Your task to perform on an android device: delete a single message in the gmail app Image 0: 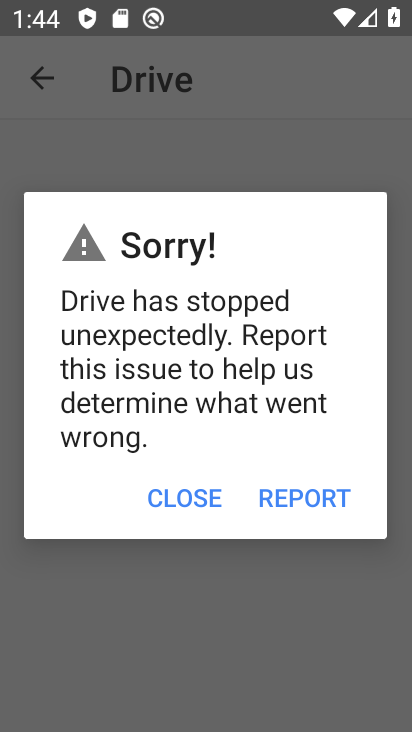
Step 0: click (175, 501)
Your task to perform on an android device: delete a single message in the gmail app Image 1: 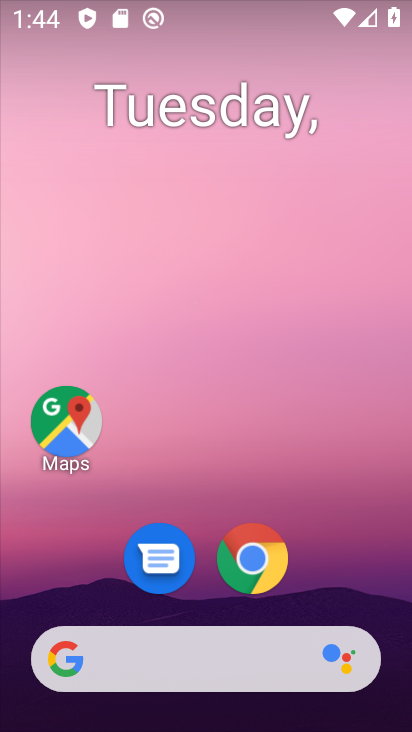
Step 1: drag from (207, 619) to (290, 88)
Your task to perform on an android device: delete a single message in the gmail app Image 2: 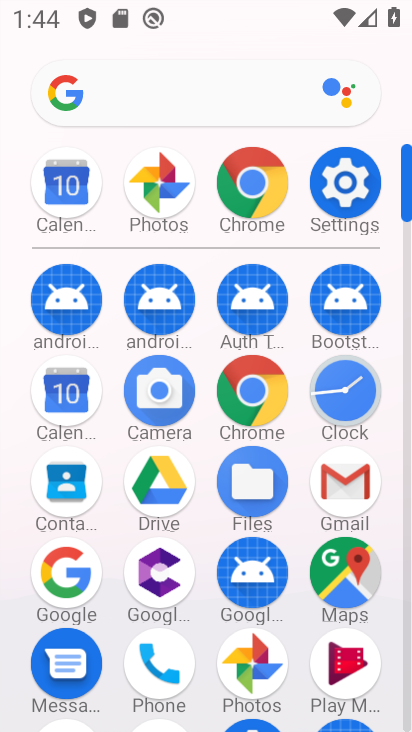
Step 2: click (327, 492)
Your task to perform on an android device: delete a single message in the gmail app Image 3: 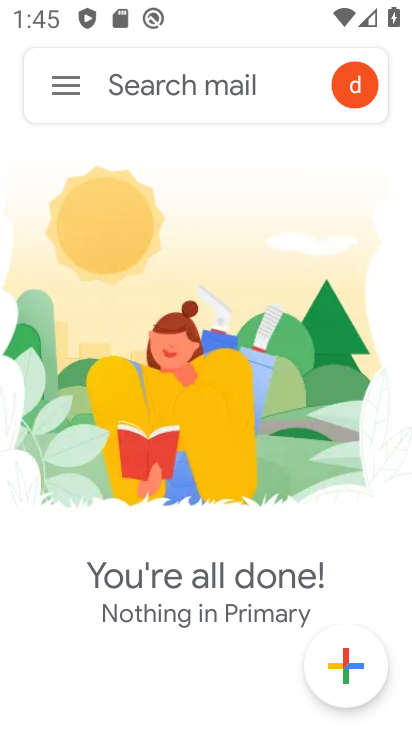
Step 3: click (63, 83)
Your task to perform on an android device: delete a single message in the gmail app Image 4: 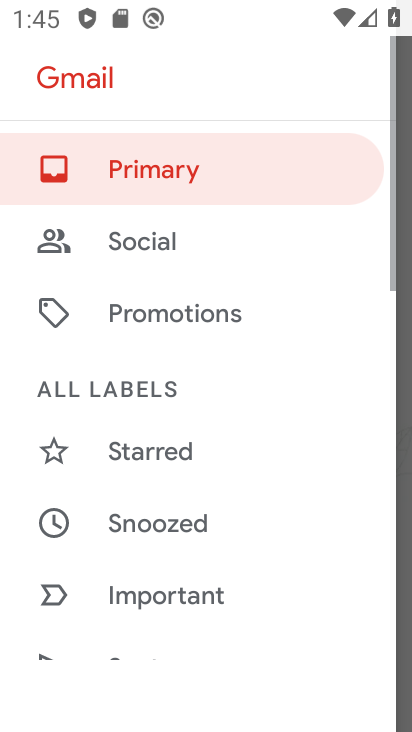
Step 4: drag from (208, 605) to (285, 134)
Your task to perform on an android device: delete a single message in the gmail app Image 5: 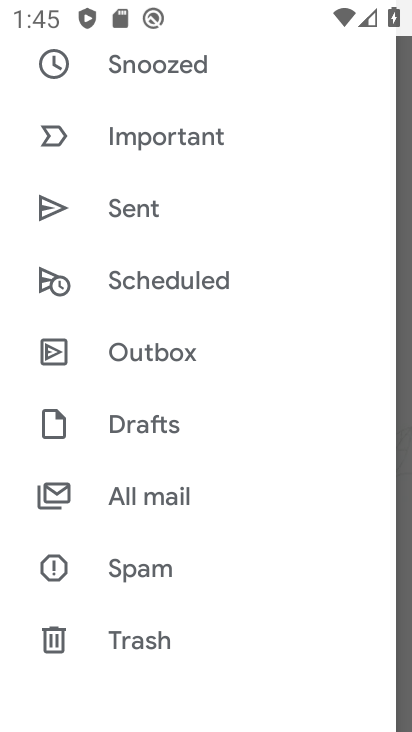
Step 5: click (151, 484)
Your task to perform on an android device: delete a single message in the gmail app Image 6: 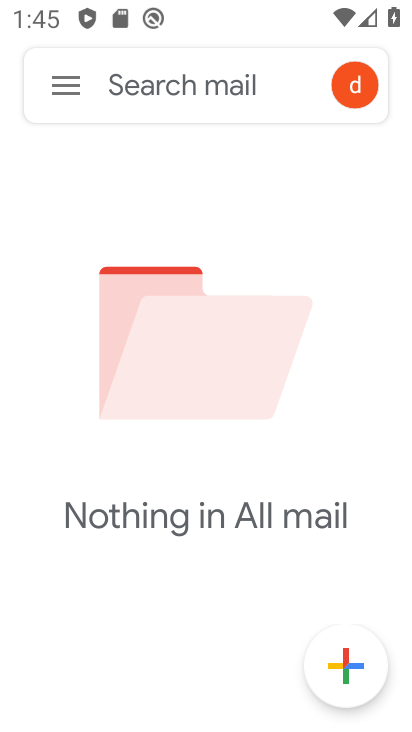
Step 6: task complete